Your task to perform on an android device: Open calendar and show me the fourth week of next month Image 0: 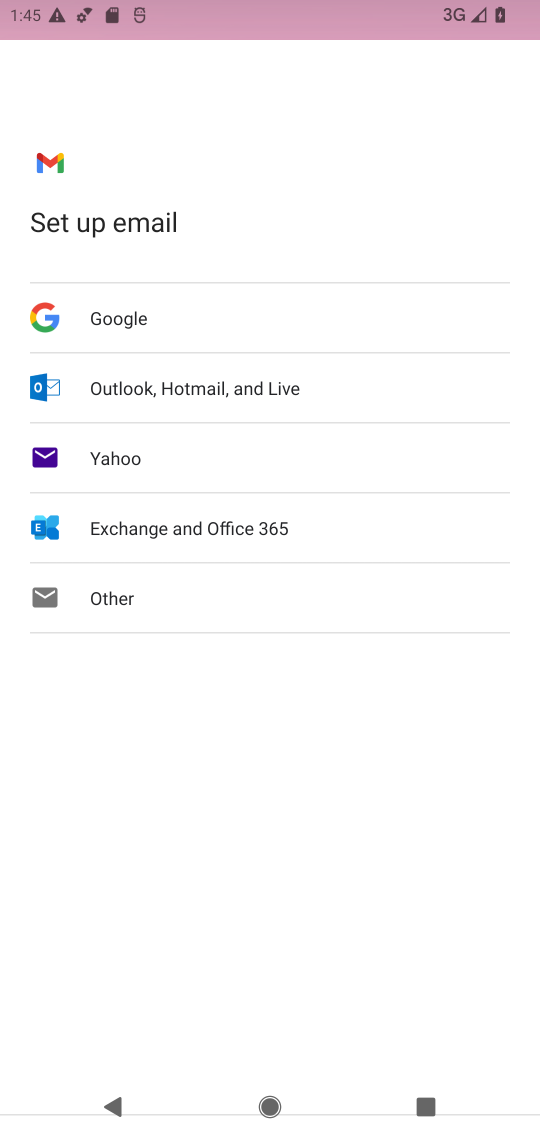
Step 0: drag from (270, 320) to (215, 64)
Your task to perform on an android device: Open calendar and show me the fourth week of next month Image 1: 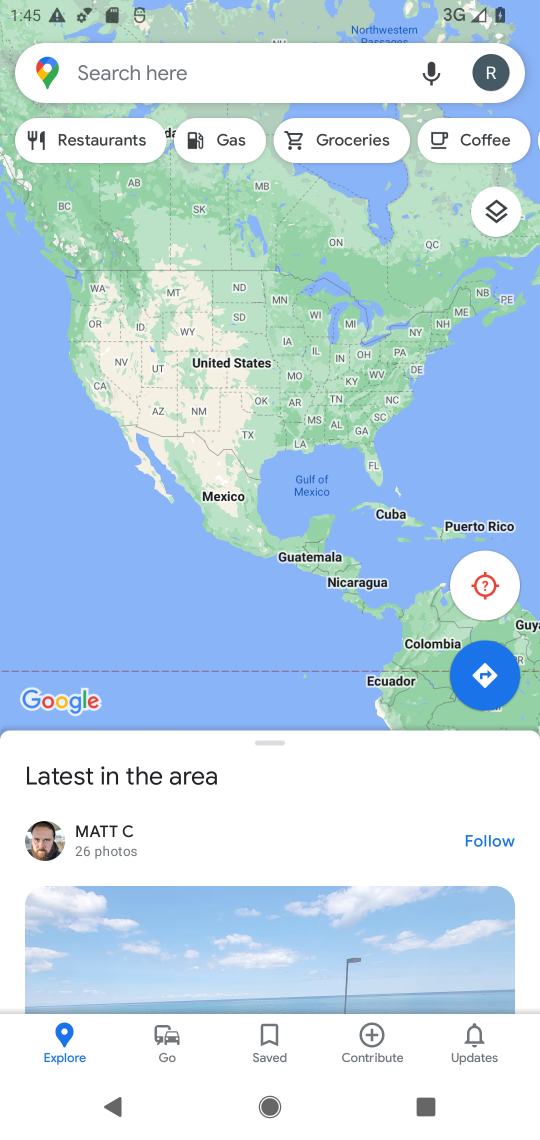
Step 1: press home button
Your task to perform on an android device: Open calendar and show me the fourth week of next month Image 2: 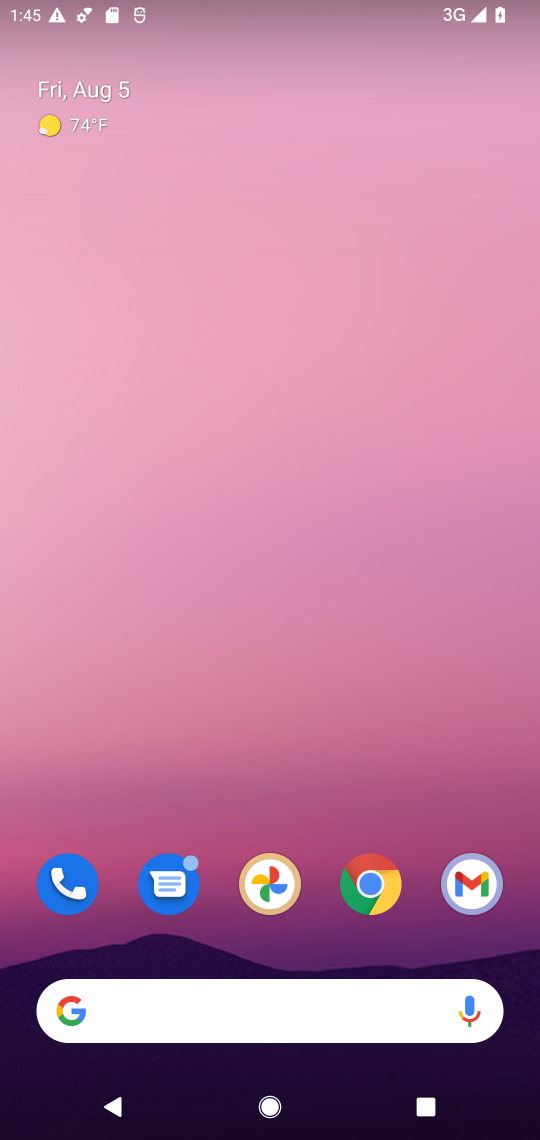
Step 2: drag from (412, 955) to (290, 95)
Your task to perform on an android device: Open calendar and show me the fourth week of next month Image 3: 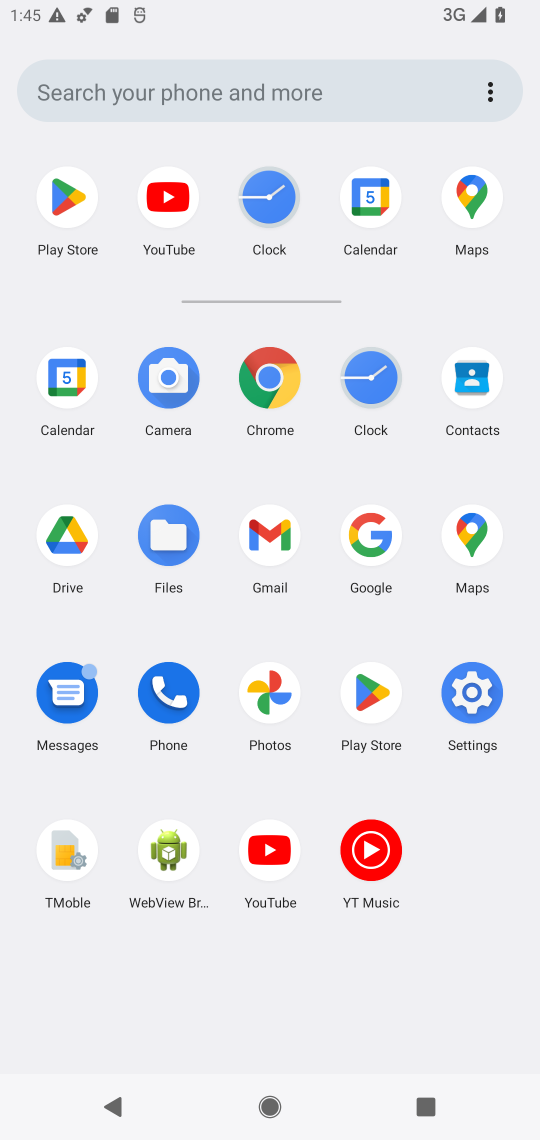
Step 3: click (66, 382)
Your task to perform on an android device: Open calendar and show me the fourth week of next month Image 4: 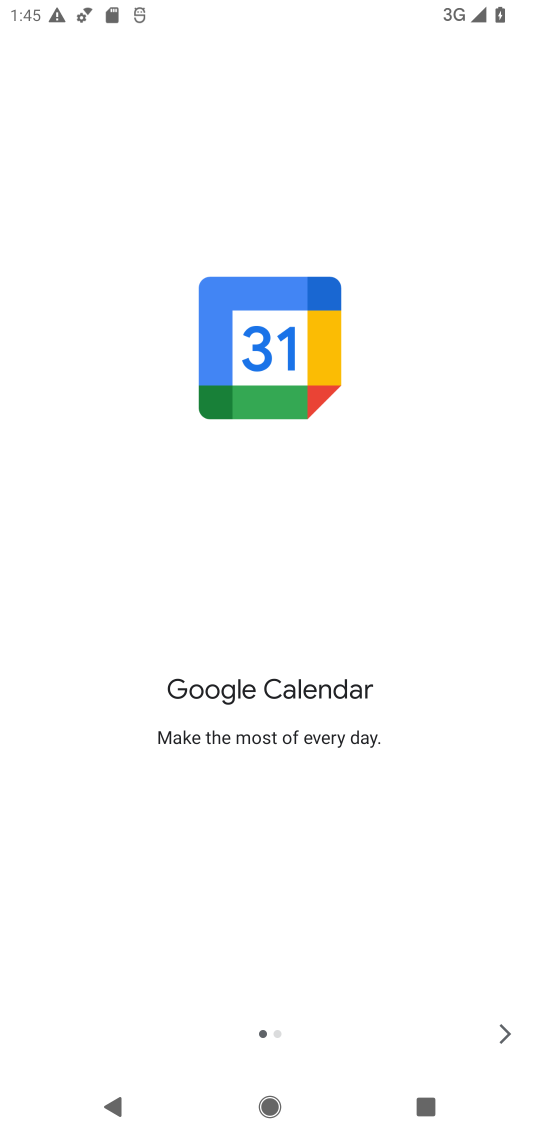
Step 4: click (500, 1027)
Your task to perform on an android device: Open calendar and show me the fourth week of next month Image 5: 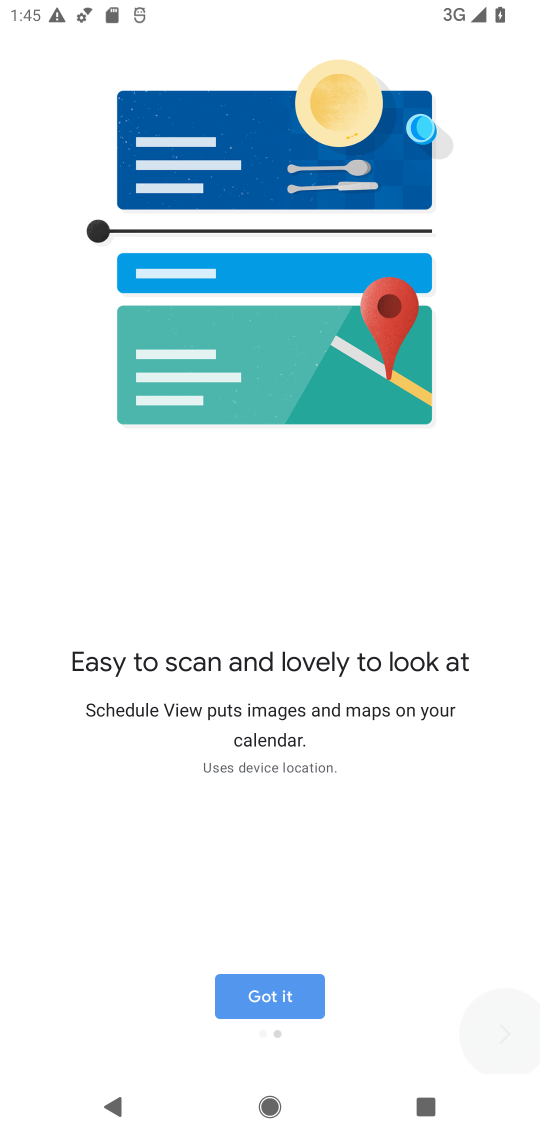
Step 5: click (500, 1027)
Your task to perform on an android device: Open calendar and show me the fourth week of next month Image 6: 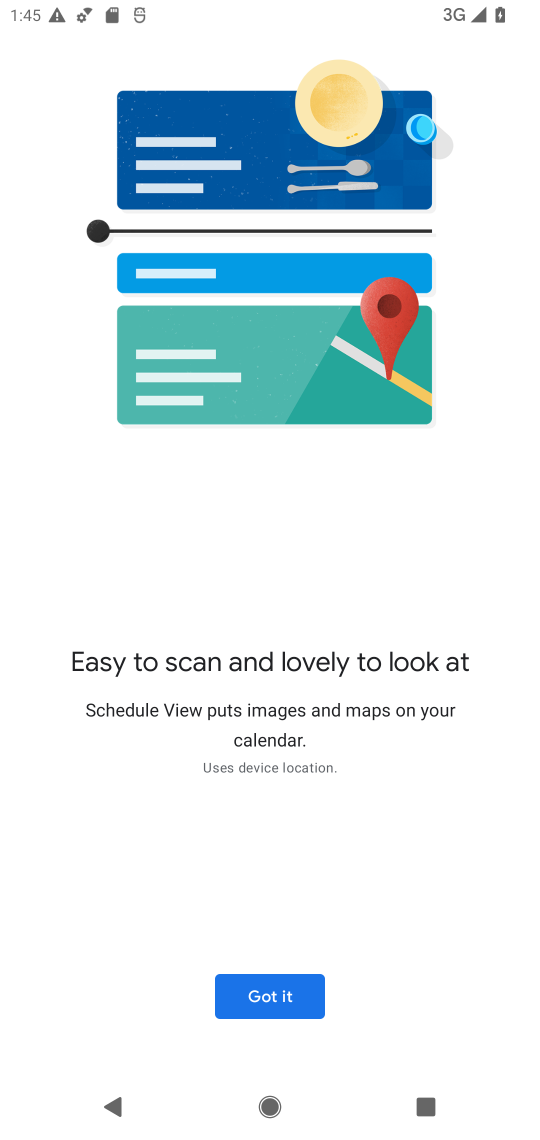
Step 6: click (272, 998)
Your task to perform on an android device: Open calendar and show me the fourth week of next month Image 7: 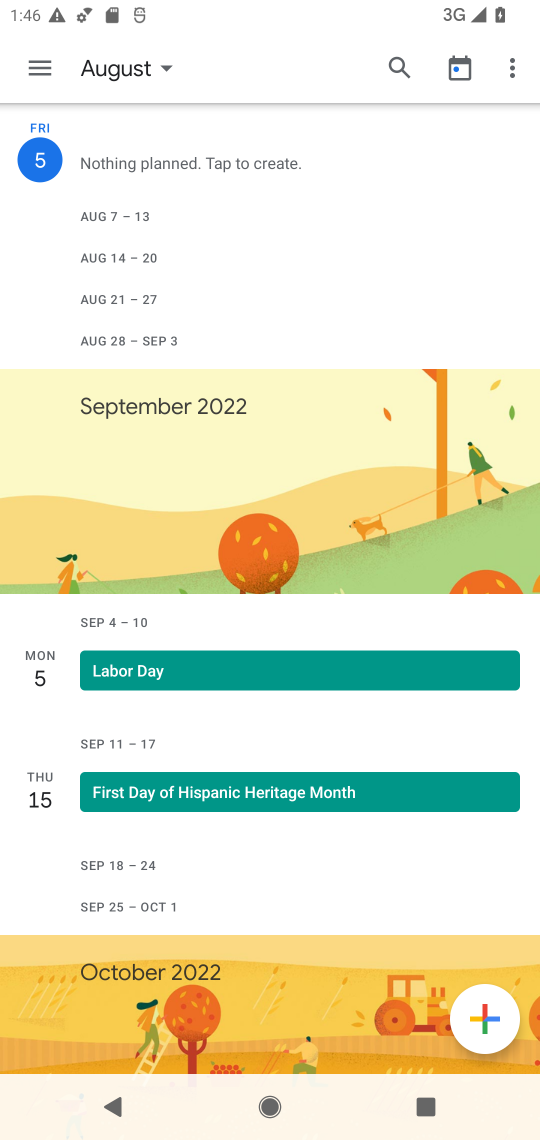
Step 7: click (104, 61)
Your task to perform on an android device: Open calendar and show me the fourth week of next month Image 8: 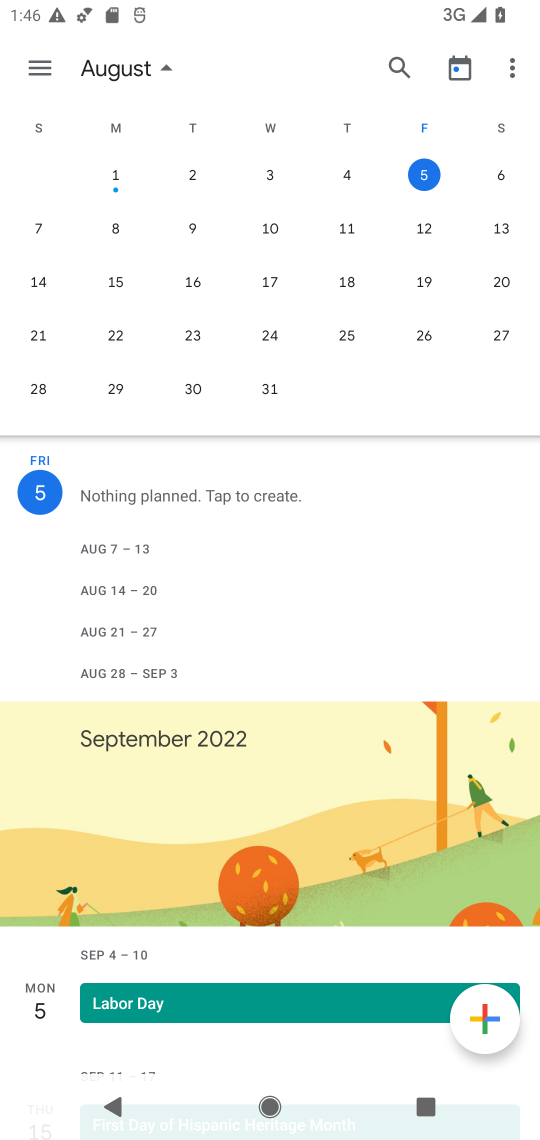
Step 8: drag from (501, 250) to (5, 265)
Your task to perform on an android device: Open calendar and show me the fourth week of next month Image 9: 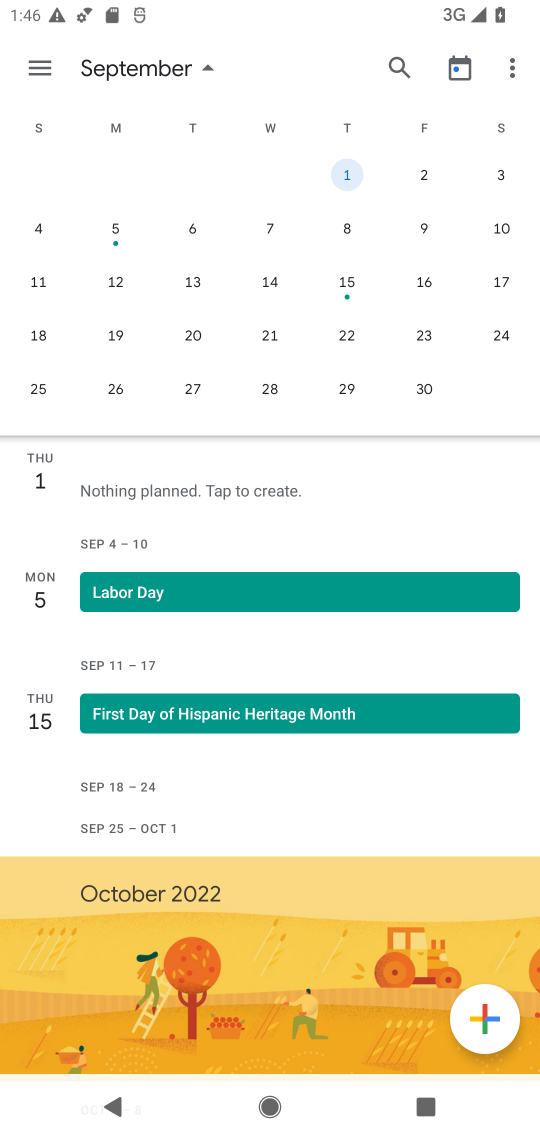
Step 9: click (36, 381)
Your task to perform on an android device: Open calendar and show me the fourth week of next month Image 10: 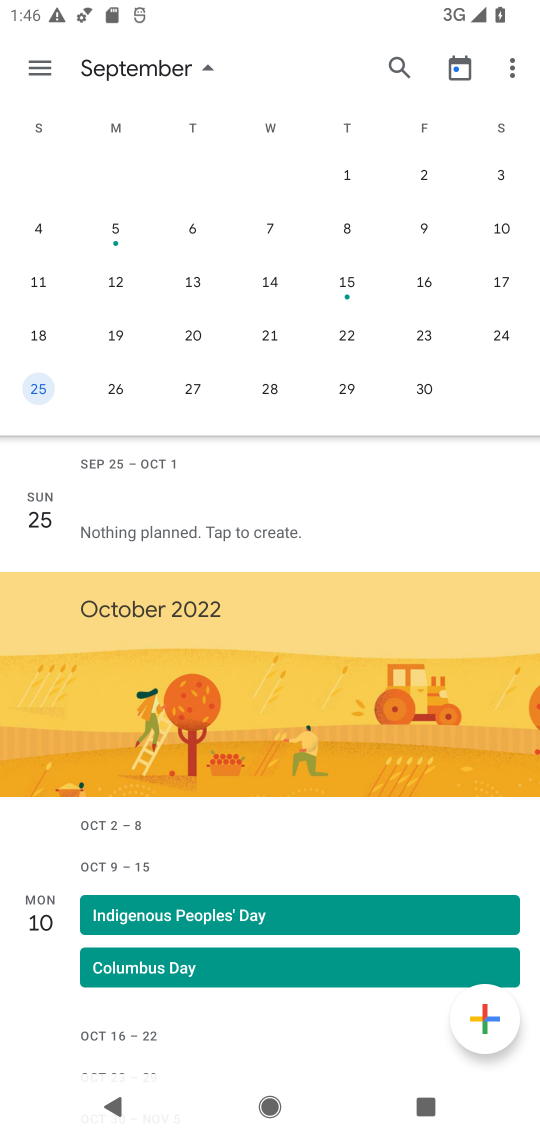
Step 10: task complete